Your task to perform on an android device: What's on my calendar for the rest of the week? Image 0: 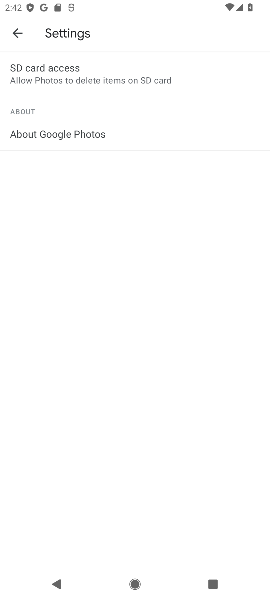
Step 0: press home button
Your task to perform on an android device: What's on my calendar for the rest of the week? Image 1: 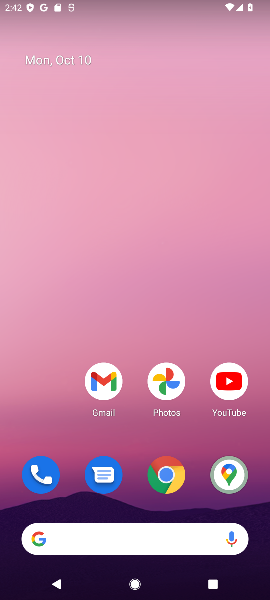
Step 1: drag from (138, 515) to (174, 67)
Your task to perform on an android device: What's on my calendar for the rest of the week? Image 2: 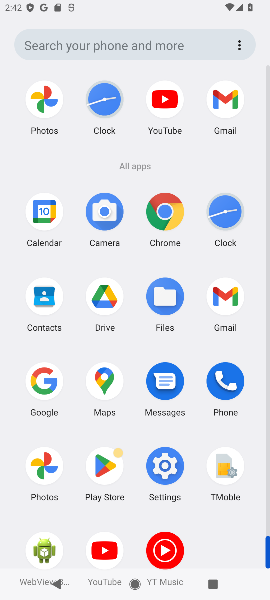
Step 2: click (51, 229)
Your task to perform on an android device: What's on my calendar for the rest of the week? Image 3: 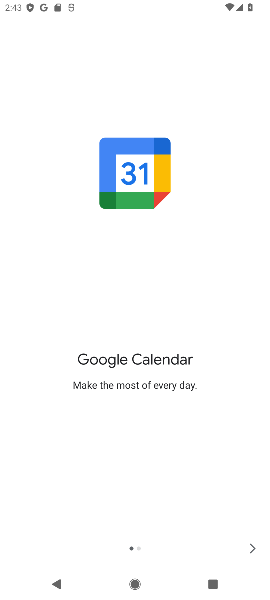
Step 3: click (250, 548)
Your task to perform on an android device: What's on my calendar for the rest of the week? Image 4: 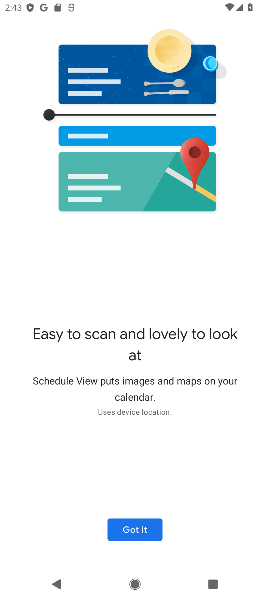
Step 4: click (146, 534)
Your task to perform on an android device: What's on my calendar for the rest of the week? Image 5: 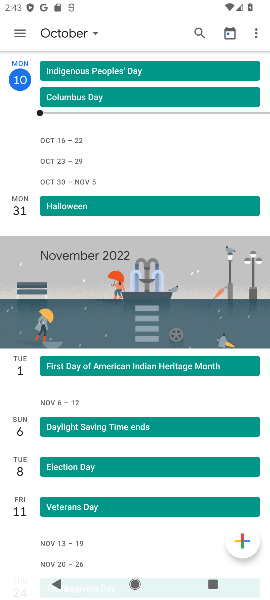
Step 5: drag from (110, 405) to (114, 292)
Your task to perform on an android device: What's on my calendar for the rest of the week? Image 6: 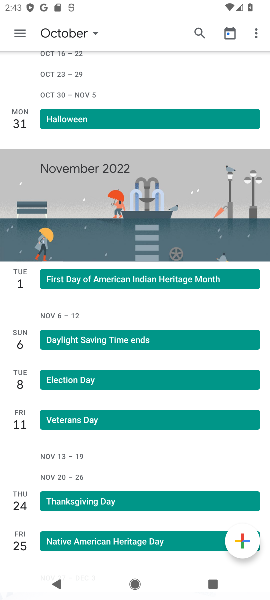
Step 6: drag from (120, 216) to (125, 344)
Your task to perform on an android device: What's on my calendar for the rest of the week? Image 7: 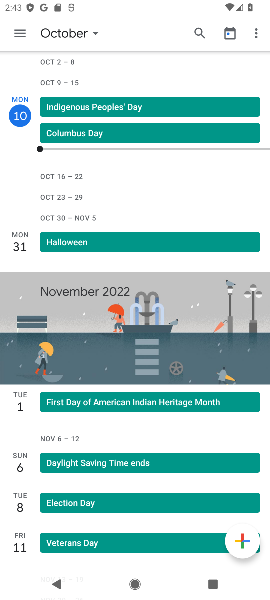
Step 7: drag from (118, 205) to (129, 328)
Your task to perform on an android device: What's on my calendar for the rest of the week? Image 8: 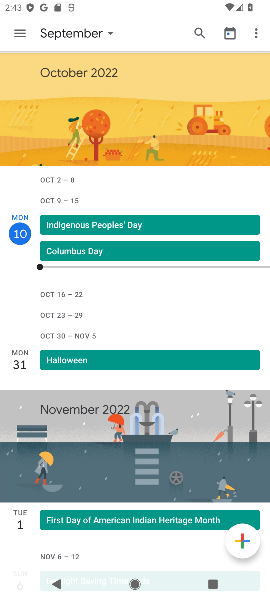
Step 8: drag from (129, 157) to (128, 334)
Your task to perform on an android device: What's on my calendar for the rest of the week? Image 9: 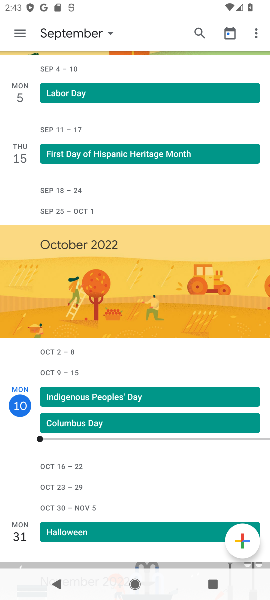
Step 9: drag from (103, 151) to (109, 343)
Your task to perform on an android device: What's on my calendar for the rest of the week? Image 10: 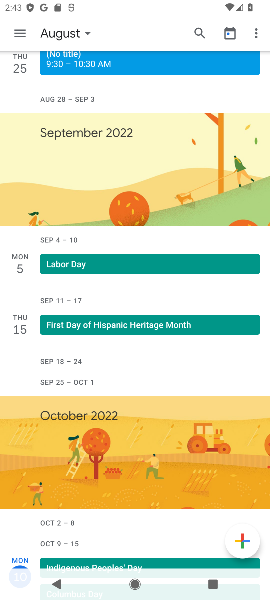
Step 10: drag from (109, 343) to (116, 221)
Your task to perform on an android device: What's on my calendar for the rest of the week? Image 11: 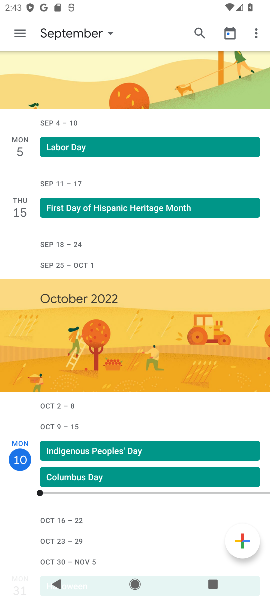
Step 11: click (95, 39)
Your task to perform on an android device: What's on my calendar for the rest of the week? Image 12: 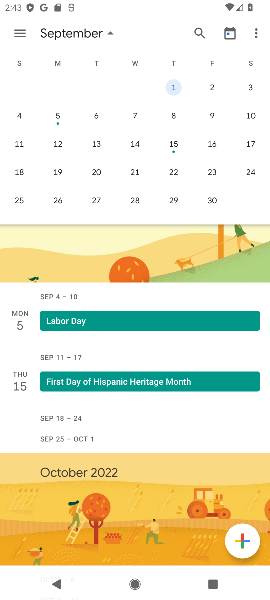
Step 12: drag from (214, 144) to (33, 163)
Your task to perform on an android device: What's on my calendar for the rest of the week? Image 13: 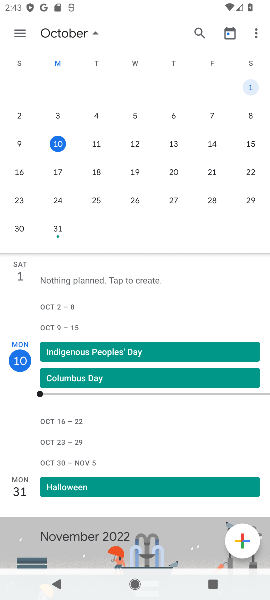
Step 13: click (50, 148)
Your task to perform on an android device: What's on my calendar for the rest of the week? Image 14: 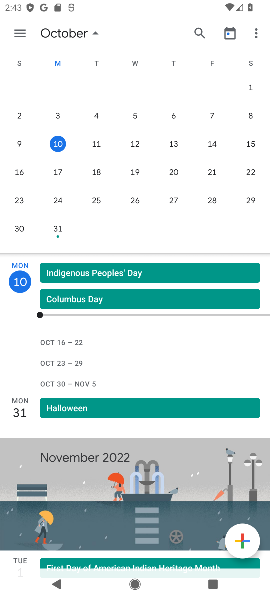
Step 14: click (112, 350)
Your task to perform on an android device: What's on my calendar for the rest of the week? Image 15: 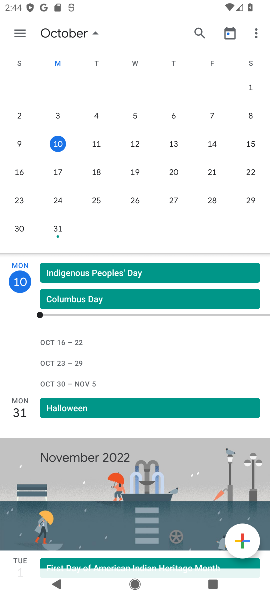
Step 15: task complete